Your task to perform on an android device: Open battery settings Image 0: 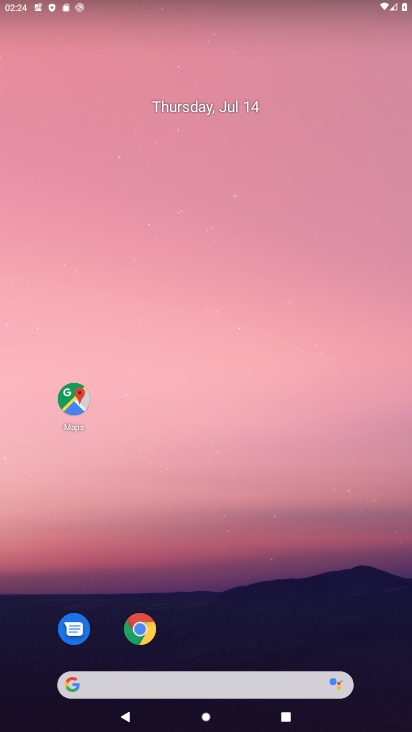
Step 0: drag from (230, 628) to (219, 25)
Your task to perform on an android device: Open battery settings Image 1: 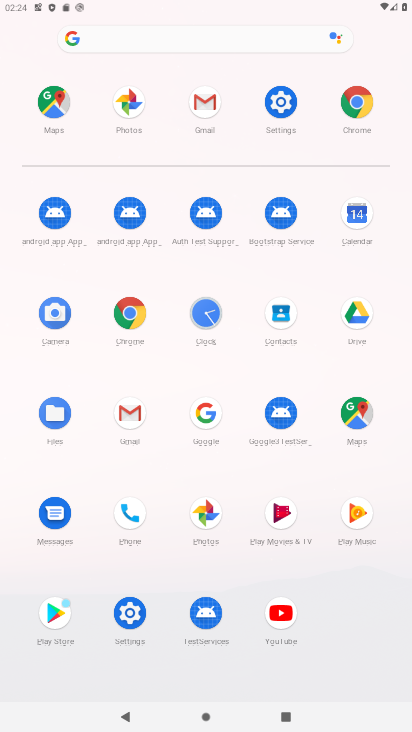
Step 1: click (117, 613)
Your task to perform on an android device: Open battery settings Image 2: 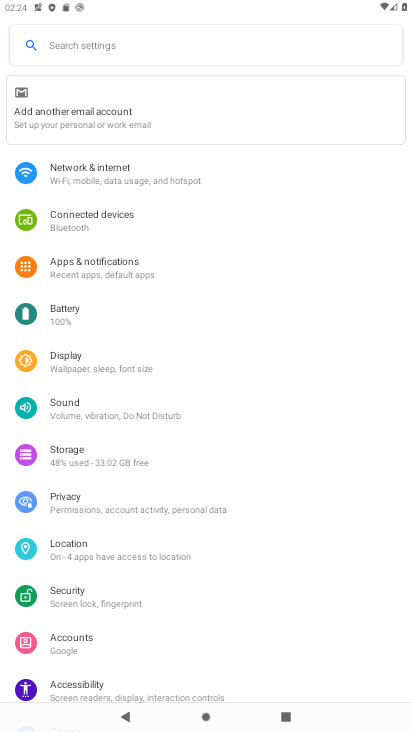
Step 2: click (86, 319)
Your task to perform on an android device: Open battery settings Image 3: 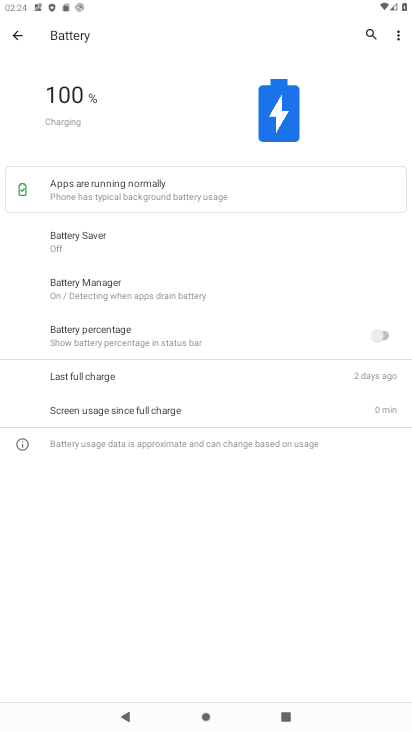
Step 3: task complete